Your task to perform on an android device: move an email to a new category in the gmail app Image 0: 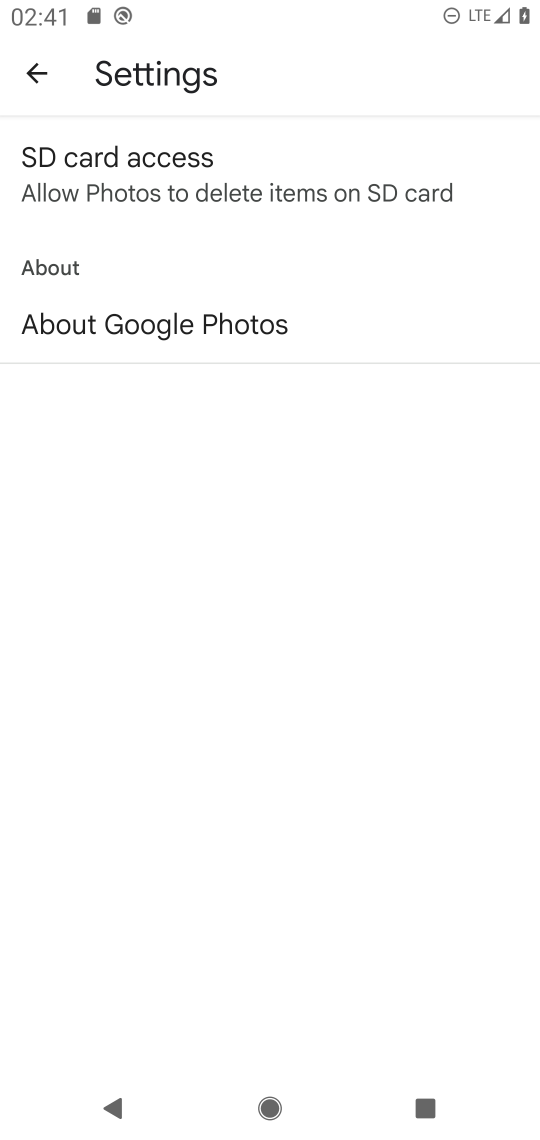
Step 0: press home button
Your task to perform on an android device: move an email to a new category in the gmail app Image 1: 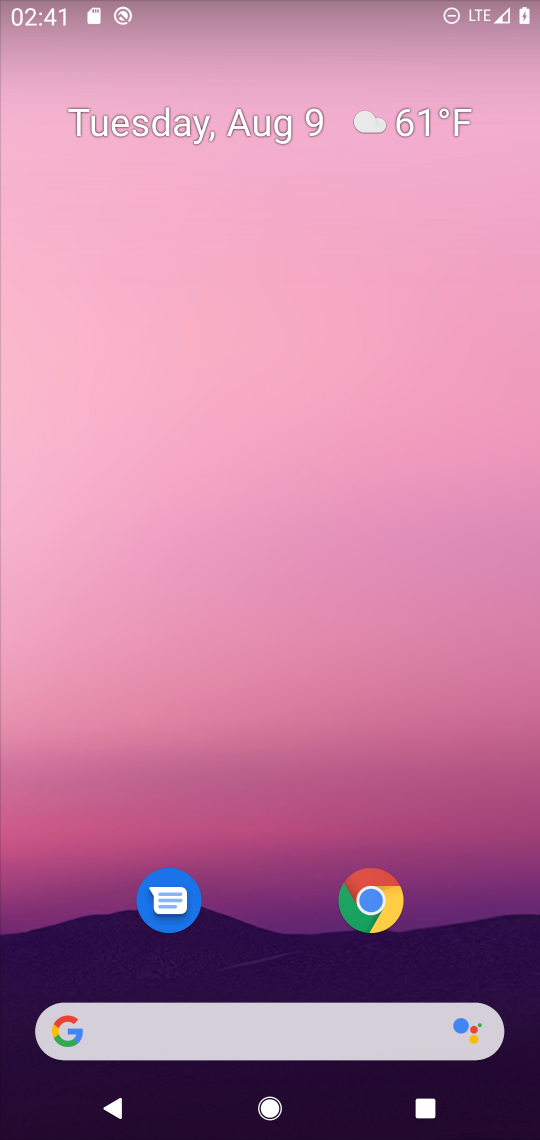
Step 1: drag from (296, 807) to (319, 254)
Your task to perform on an android device: move an email to a new category in the gmail app Image 2: 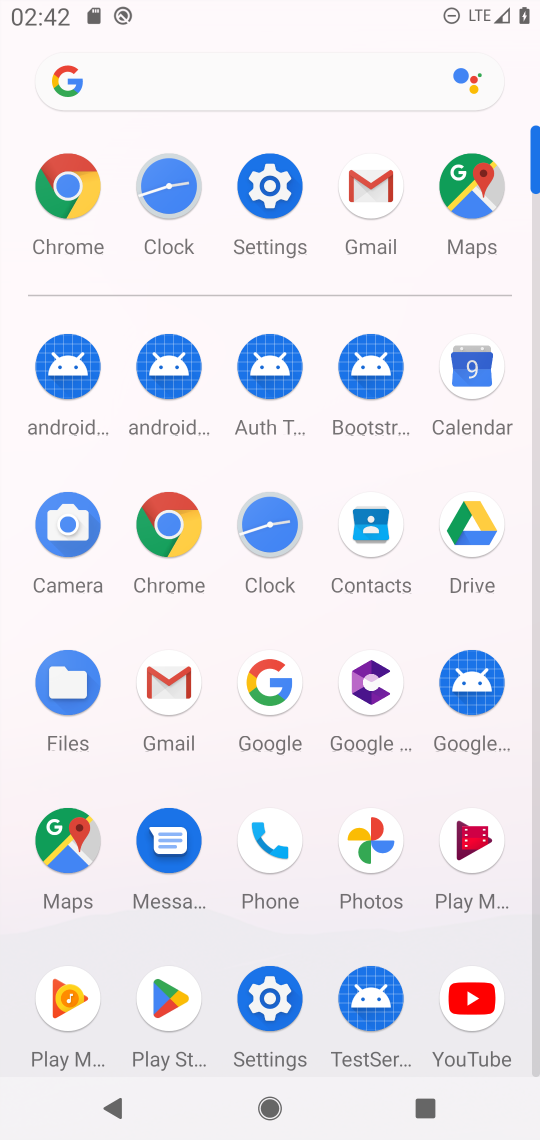
Step 2: click (175, 678)
Your task to perform on an android device: move an email to a new category in the gmail app Image 3: 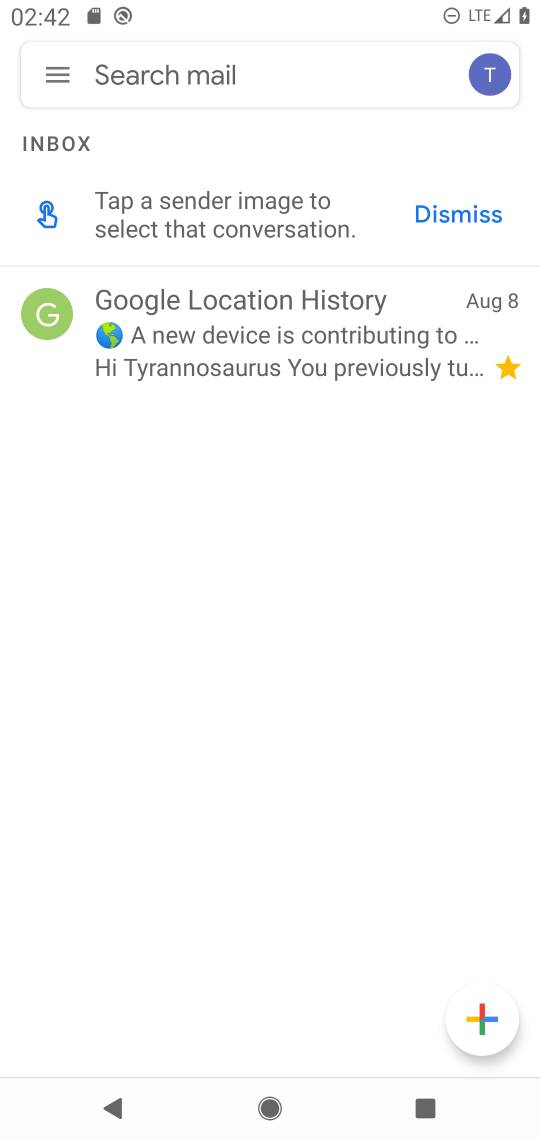
Step 3: click (347, 322)
Your task to perform on an android device: move an email to a new category in the gmail app Image 4: 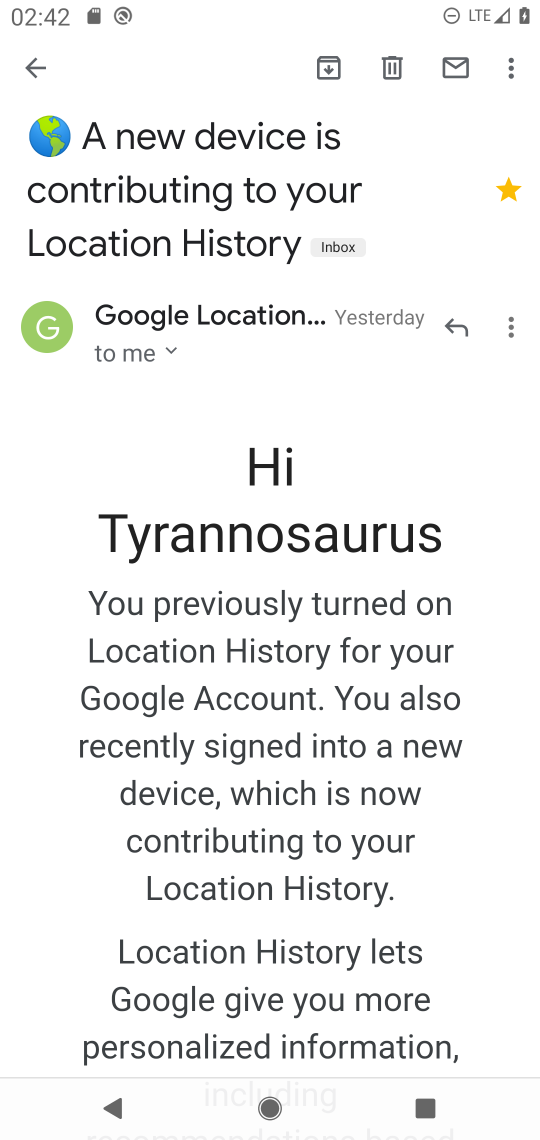
Step 4: click (507, 70)
Your task to perform on an android device: move an email to a new category in the gmail app Image 5: 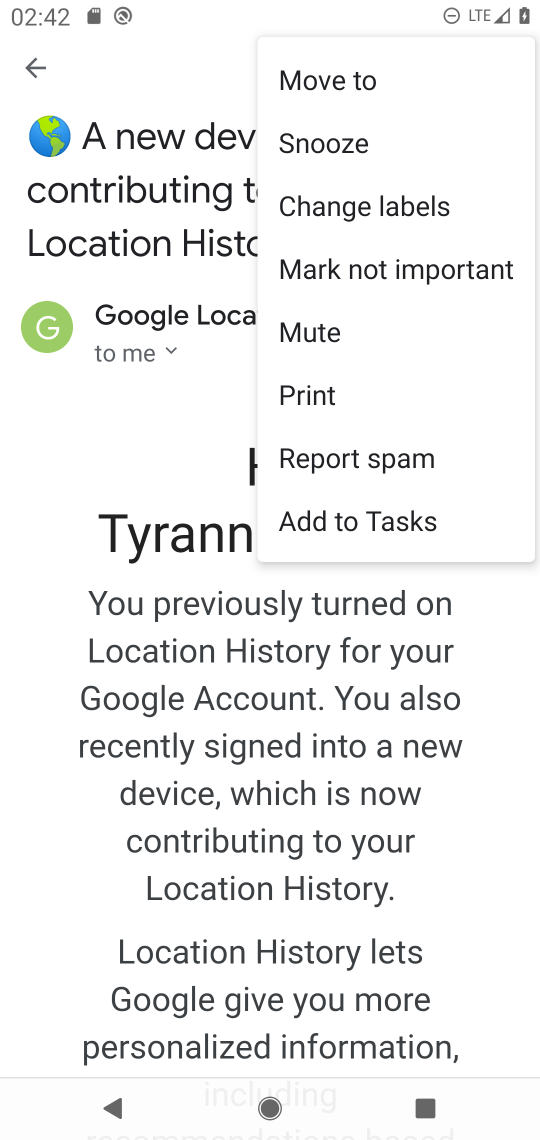
Step 5: click (361, 79)
Your task to perform on an android device: move an email to a new category in the gmail app Image 6: 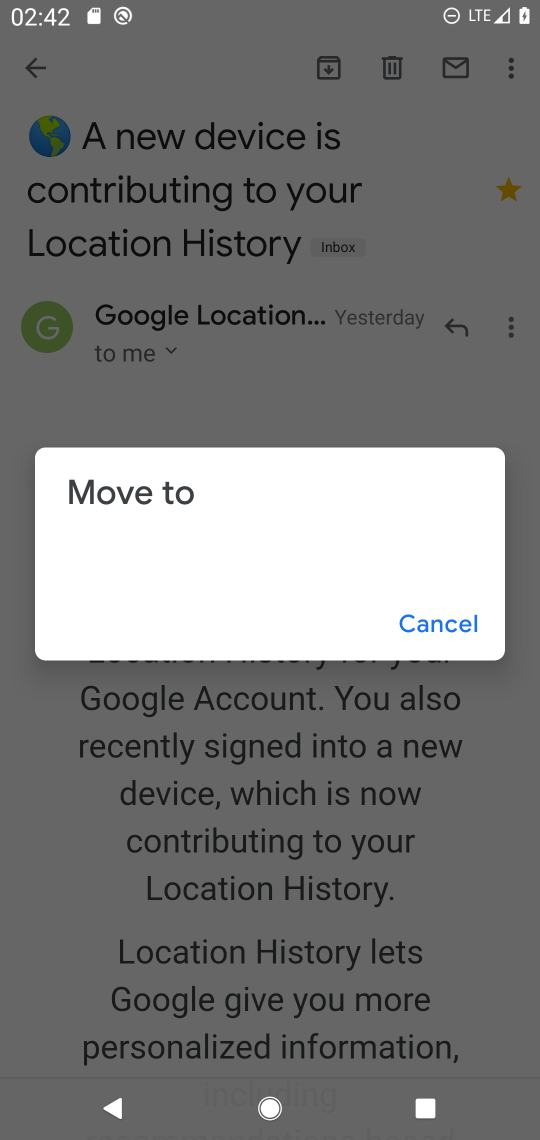
Step 6: task complete